Your task to perform on an android device: Open Google Chrome and click the shortcut for Amazon.com Image 0: 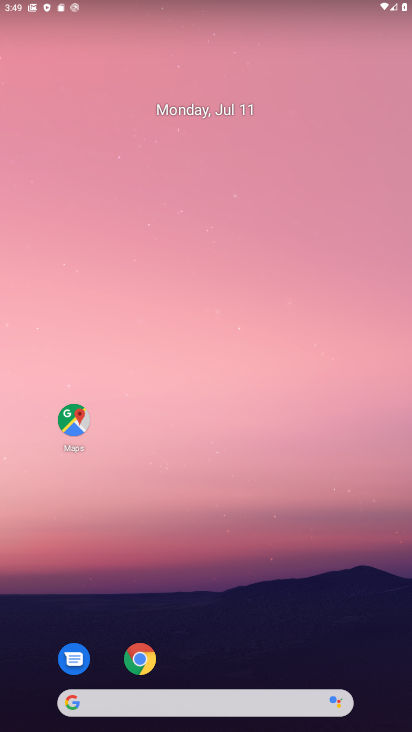
Step 0: click (135, 664)
Your task to perform on an android device: Open Google Chrome and click the shortcut for Amazon.com Image 1: 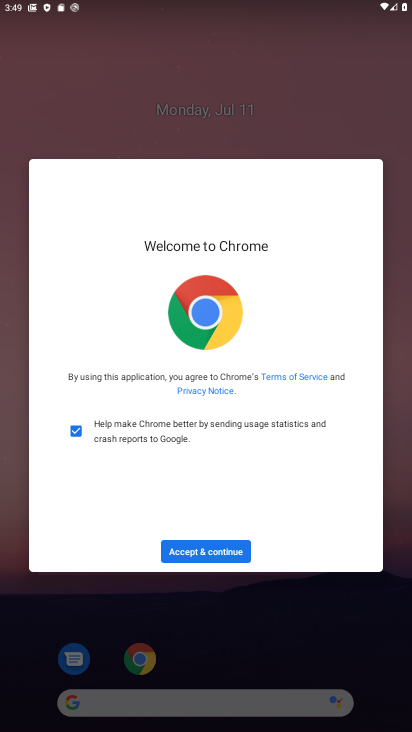
Step 1: click (194, 553)
Your task to perform on an android device: Open Google Chrome and click the shortcut for Amazon.com Image 2: 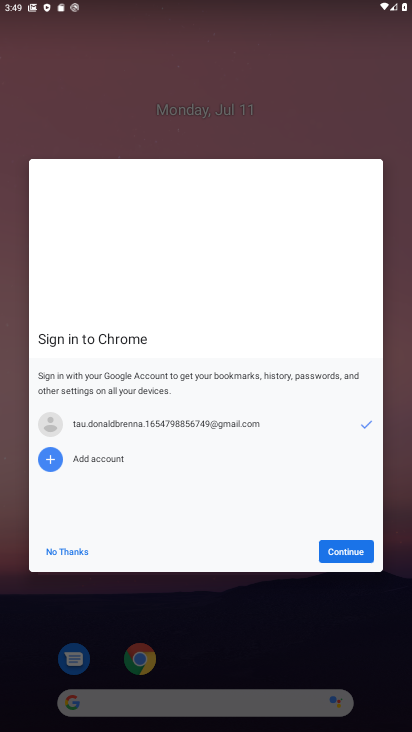
Step 2: click (326, 554)
Your task to perform on an android device: Open Google Chrome and click the shortcut for Amazon.com Image 3: 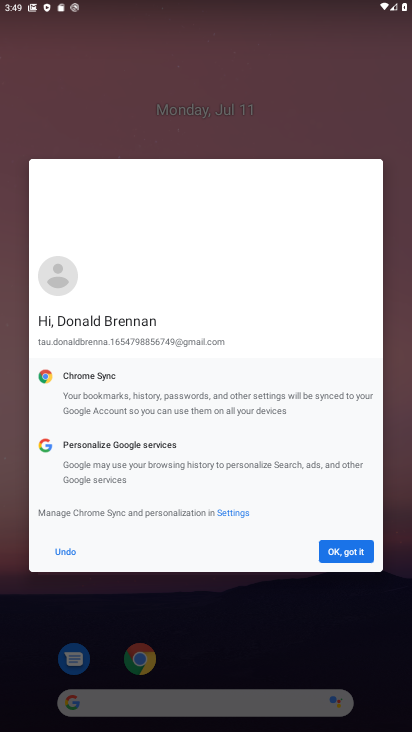
Step 3: click (326, 554)
Your task to perform on an android device: Open Google Chrome and click the shortcut for Amazon.com Image 4: 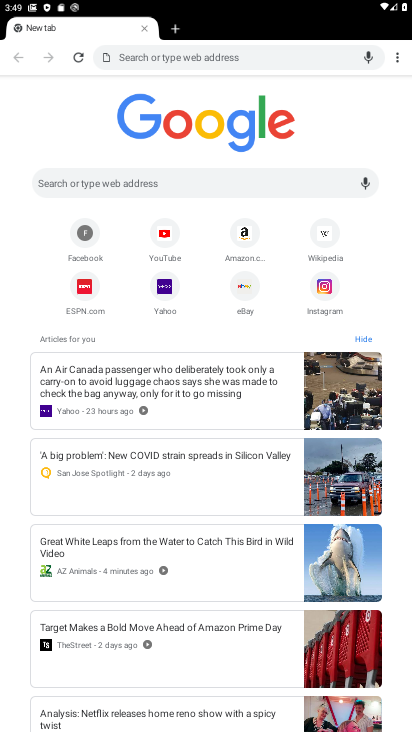
Step 4: click (247, 229)
Your task to perform on an android device: Open Google Chrome and click the shortcut for Amazon.com Image 5: 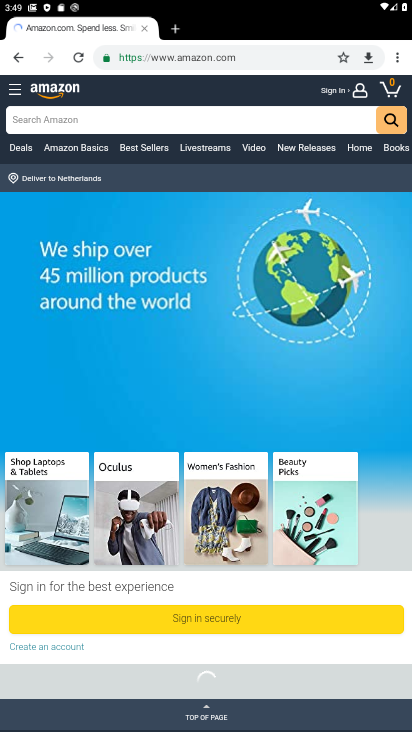
Step 5: task complete